Your task to perform on an android device: View the shopping cart on bestbuy. Add razer blade to the cart on bestbuy, then select checkout. Image 0: 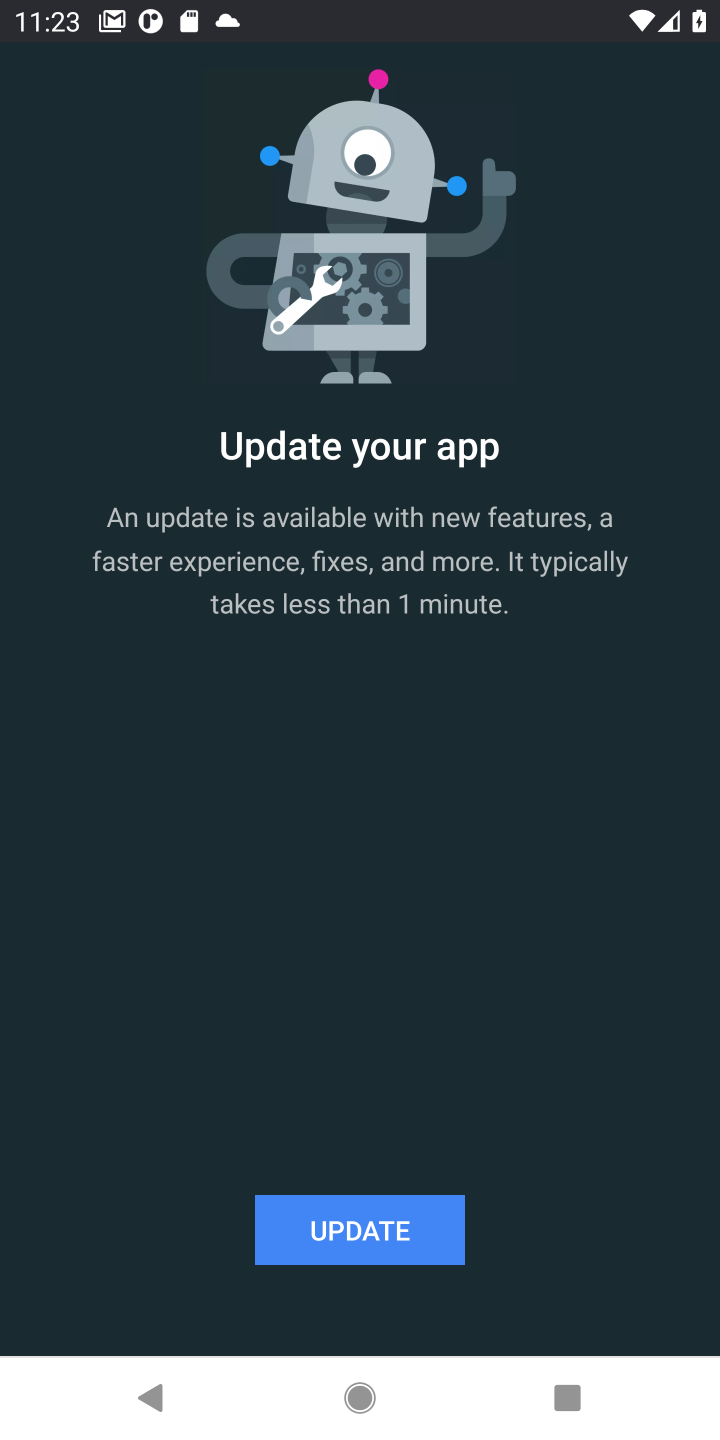
Step 0: press home button
Your task to perform on an android device: View the shopping cart on bestbuy. Add razer blade to the cart on bestbuy, then select checkout. Image 1: 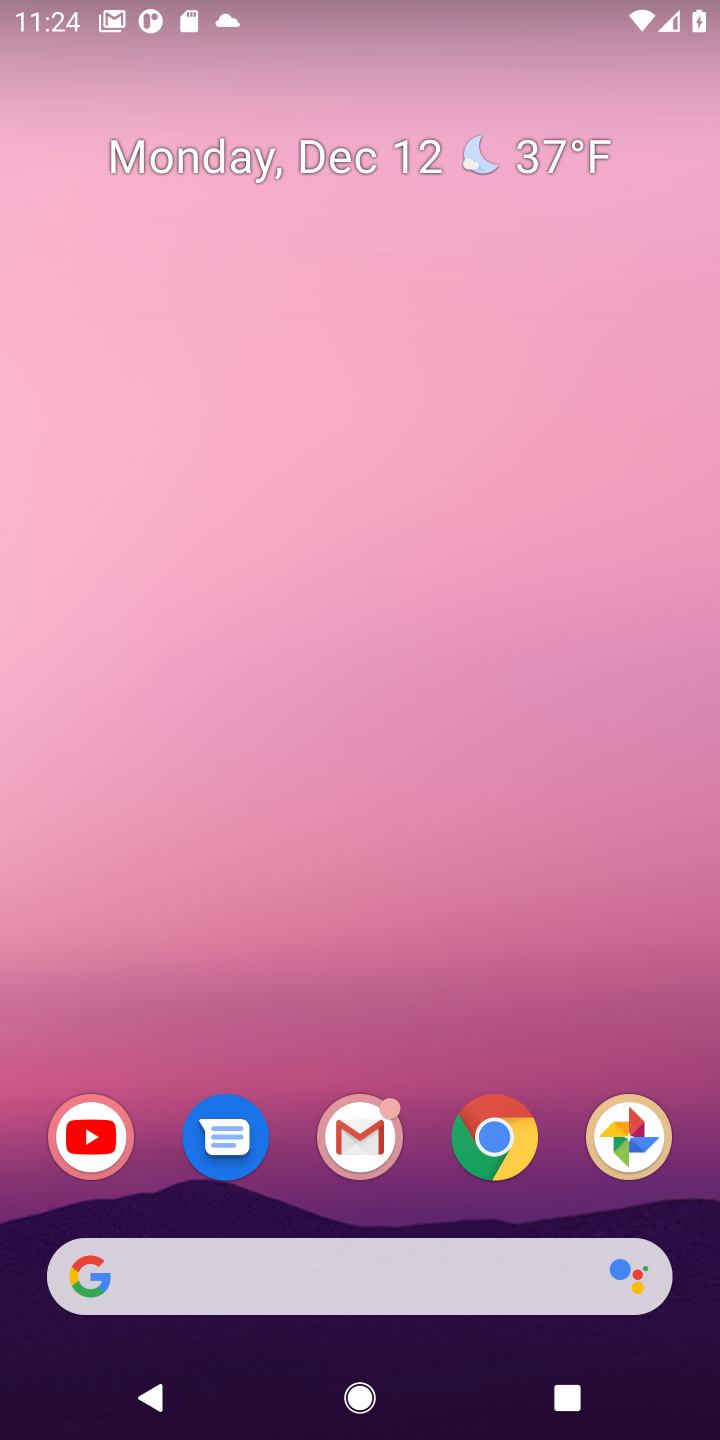
Step 1: click (442, 1273)
Your task to perform on an android device: View the shopping cart on bestbuy. Add razer blade to the cart on bestbuy, then select checkout. Image 2: 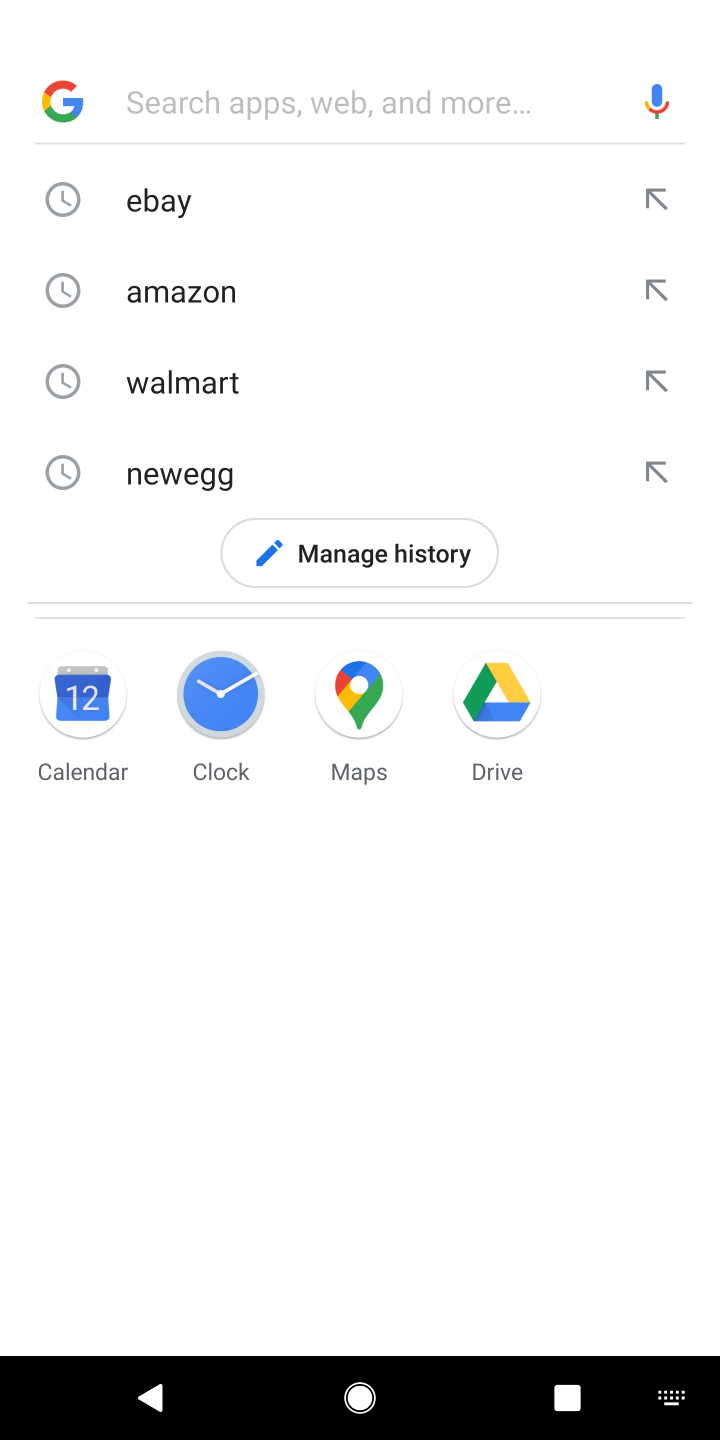
Step 2: type "bestbuy"
Your task to perform on an android device: View the shopping cart on bestbuy. Add razer blade to the cart on bestbuy, then select checkout. Image 3: 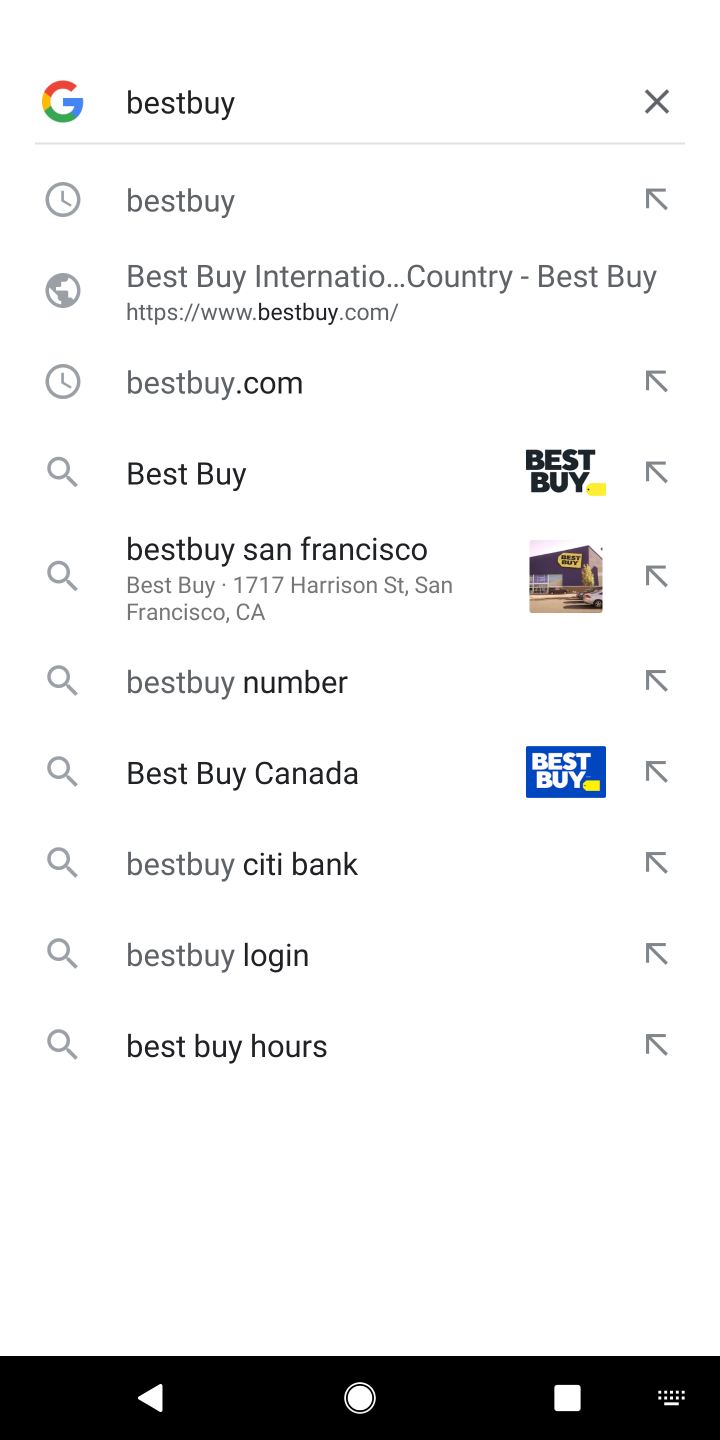
Step 3: click (287, 470)
Your task to perform on an android device: View the shopping cart on bestbuy. Add razer blade to the cart on bestbuy, then select checkout. Image 4: 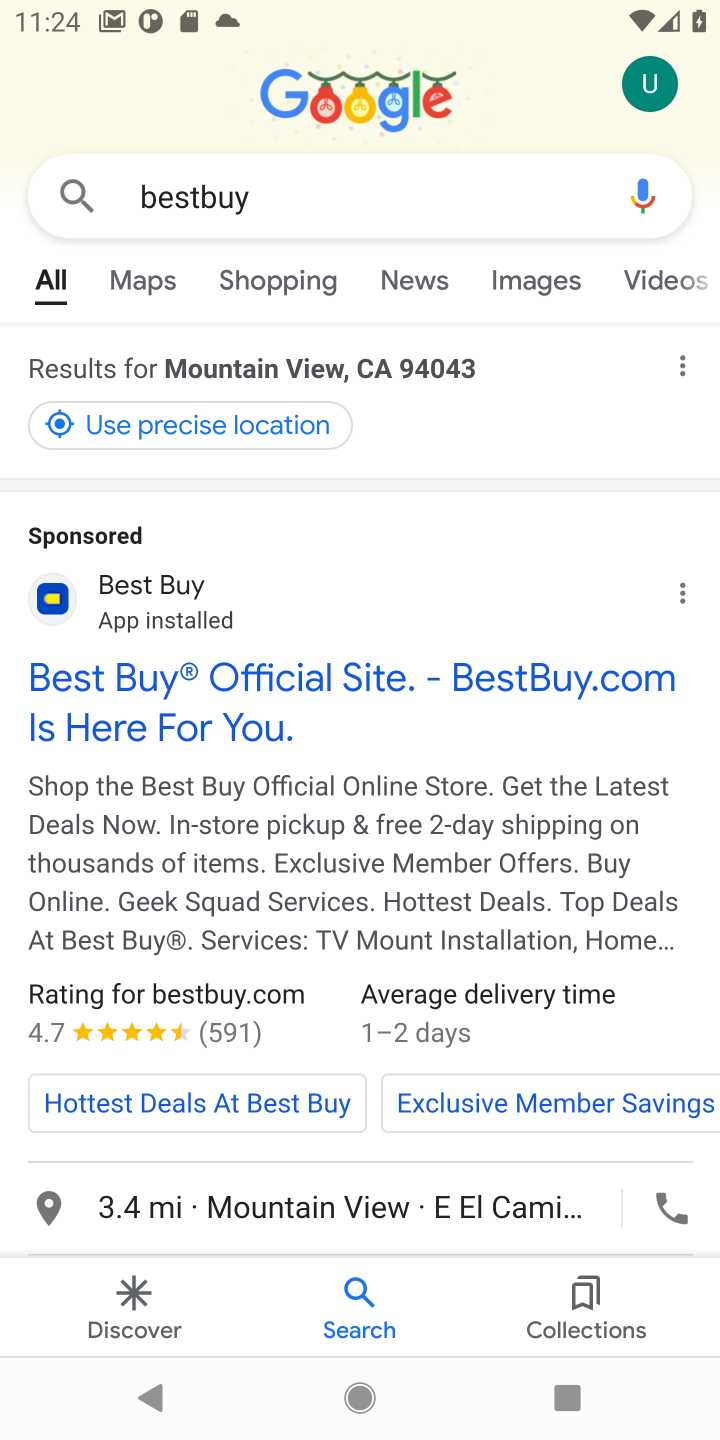
Step 4: click (213, 680)
Your task to perform on an android device: View the shopping cart on bestbuy. Add razer blade to the cart on bestbuy, then select checkout. Image 5: 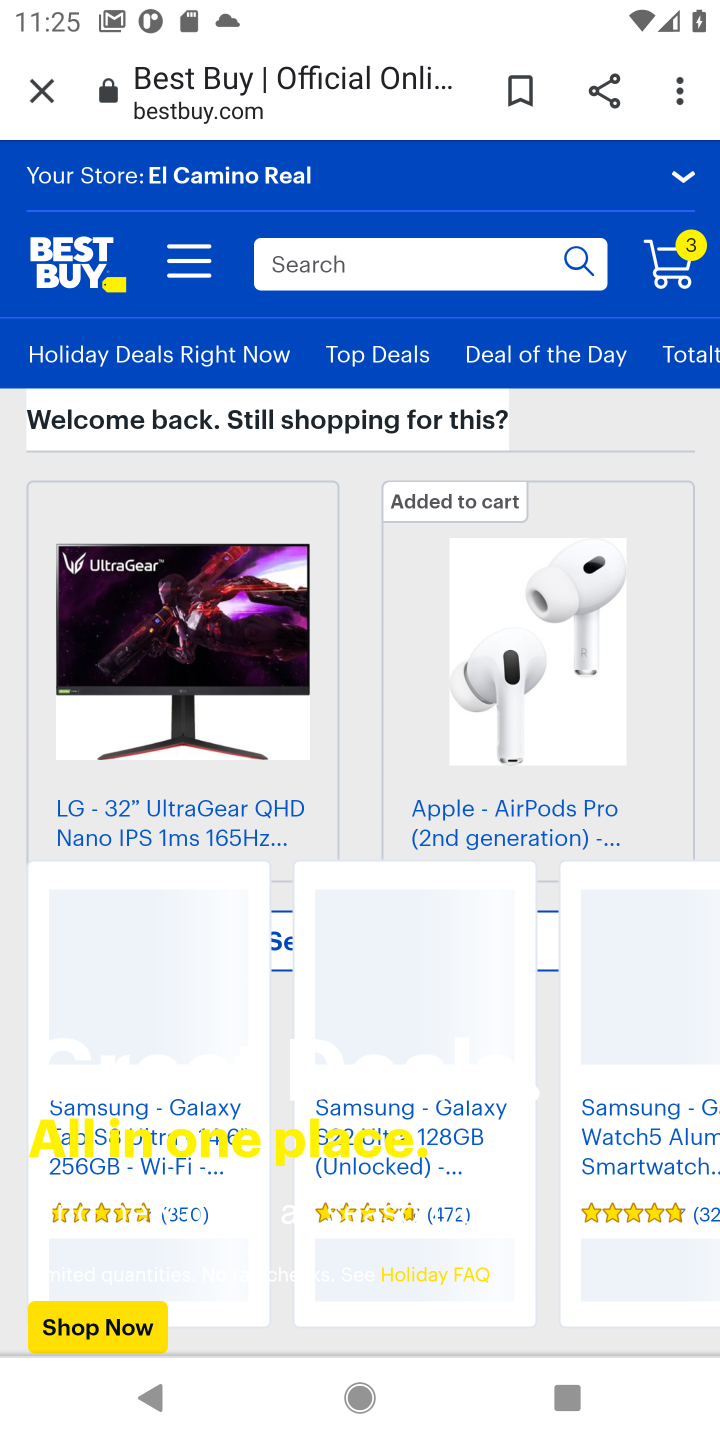
Step 5: click (231, 666)
Your task to perform on an android device: View the shopping cart on bestbuy. Add razer blade to the cart on bestbuy, then select checkout. Image 6: 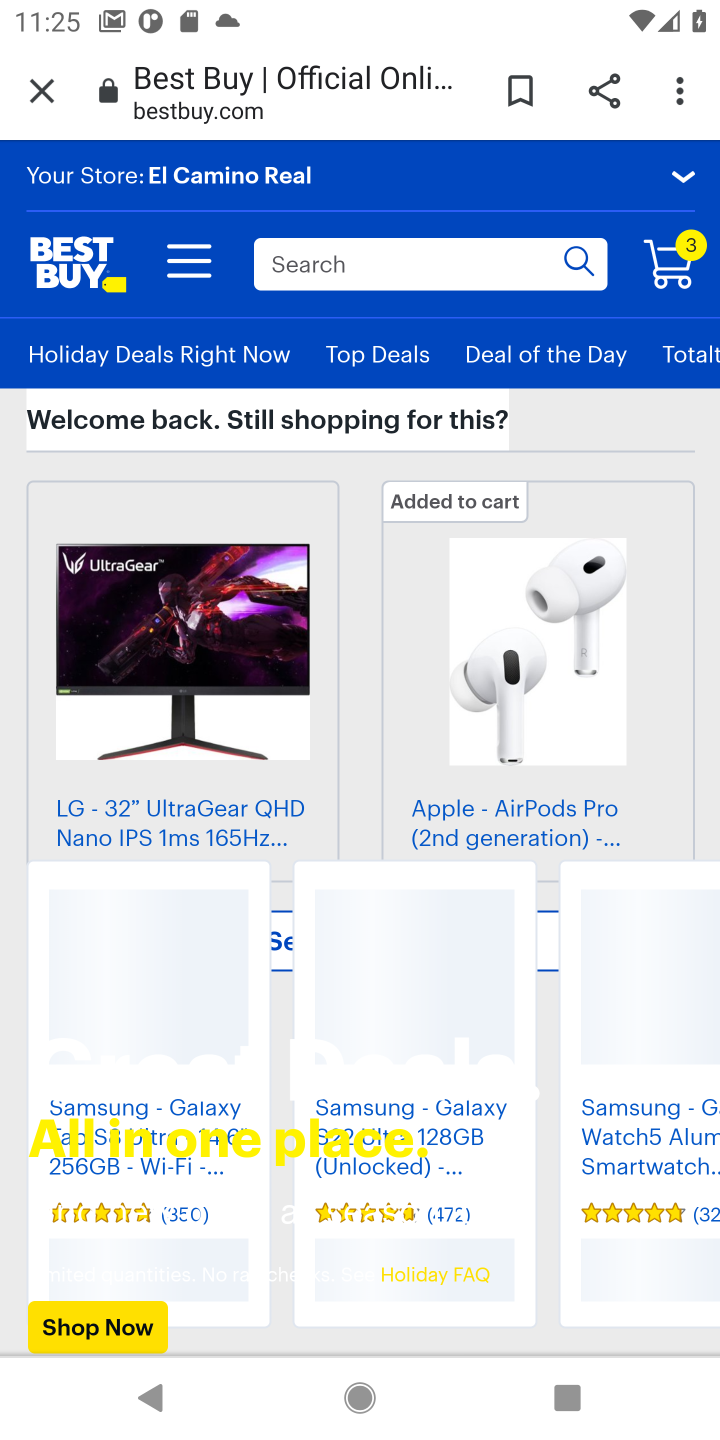
Step 6: task complete